Your task to perform on an android device: Is it going to rain this weekend? Image 0: 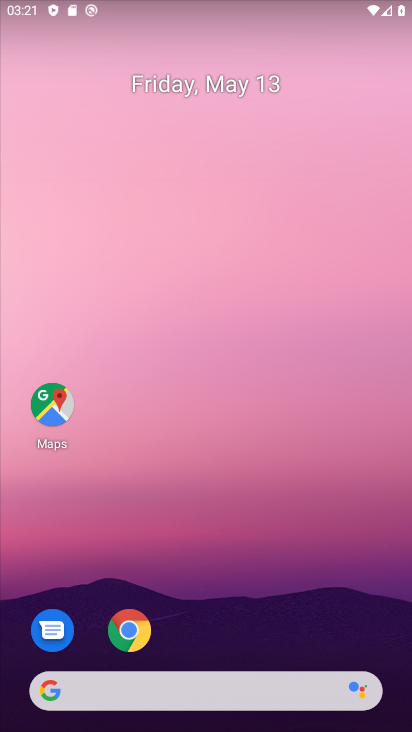
Step 0: click (189, 695)
Your task to perform on an android device: Is it going to rain this weekend? Image 1: 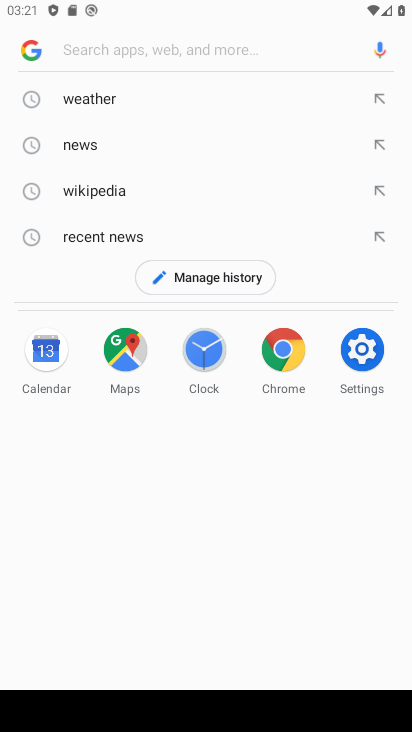
Step 1: click (84, 87)
Your task to perform on an android device: Is it going to rain this weekend? Image 2: 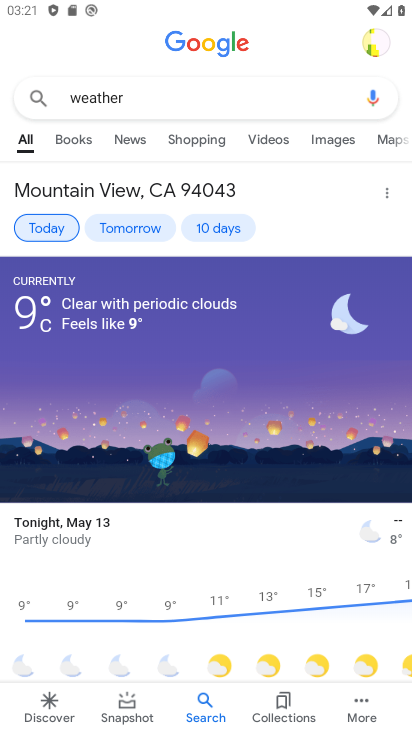
Step 2: click (213, 225)
Your task to perform on an android device: Is it going to rain this weekend? Image 3: 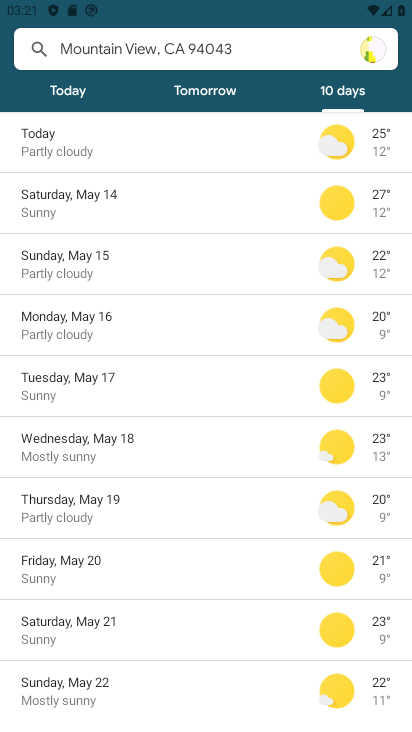
Step 3: task complete